Your task to perform on an android device: Search for vegetarian restaurants on Maps Image 0: 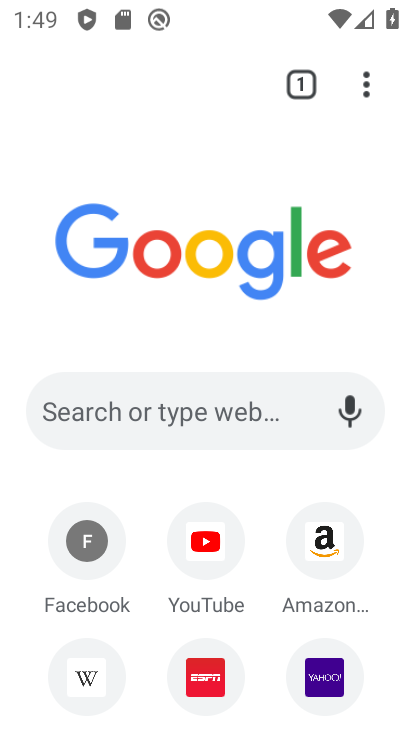
Step 0: press home button
Your task to perform on an android device: Search for vegetarian restaurants on Maps Image 1: 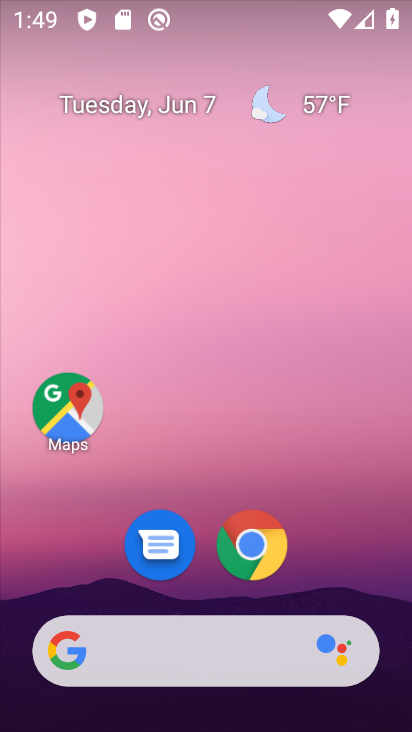
Step 1: click (74, 396)
Your task to perform on an android device: Search for vegetarian restaurants on Maps Image 2: 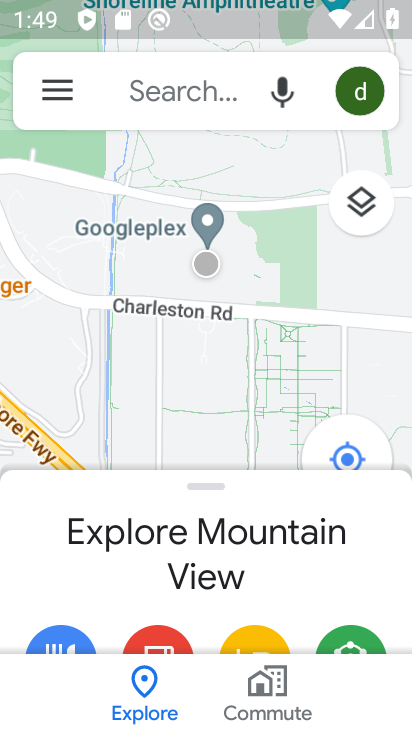
Step 2: click (188, 87)
Your task to perform on an android device: Search for vegetarian restaurants on Maps Image 3: 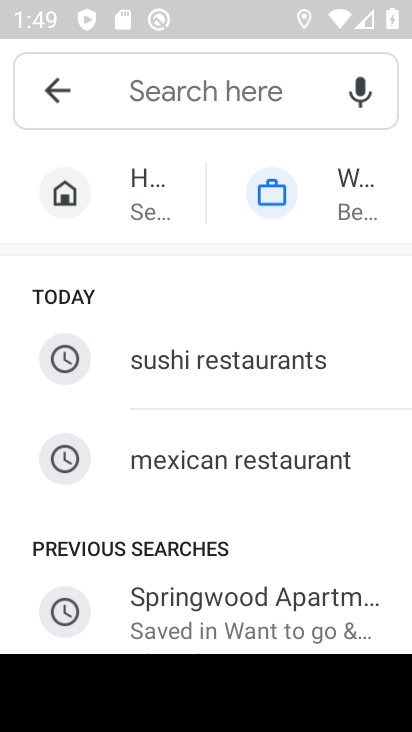
Step 3: drag from (209, 552) to (188, 123)
Your task to perform on an android device: Search for vegetarian restaurants on Maps Image 4: 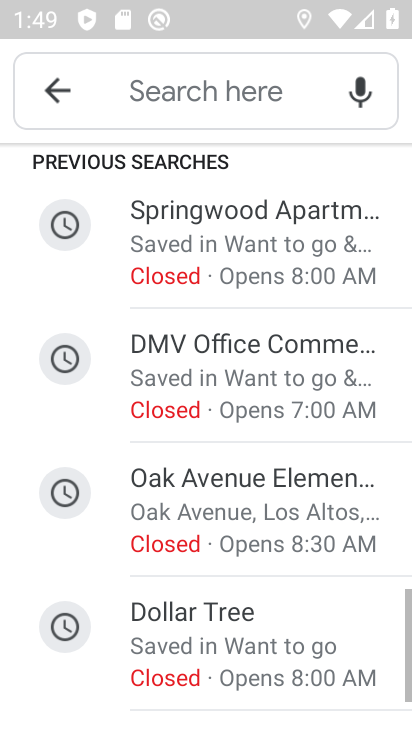
Step 4: drag from (201, 540) to (216, 193)
Your task to perform on an android device: Search for vegetarian restaurants on Maps Image 5: 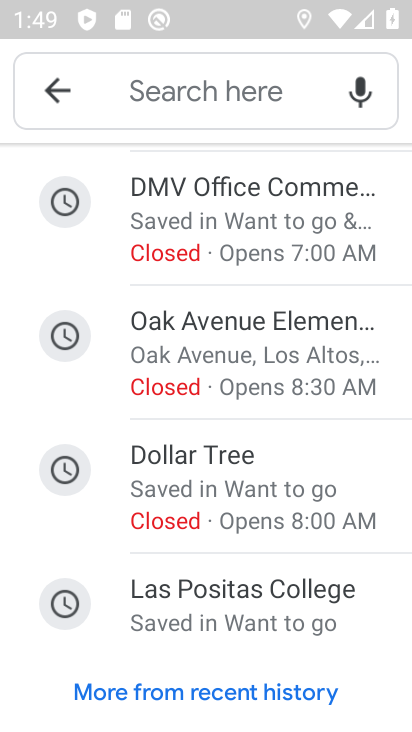
Step 5: drag from (205, 194) to (210, 677)
Your task to perform on an android device: Search for vegetarian restaurants on Maps Image 6: 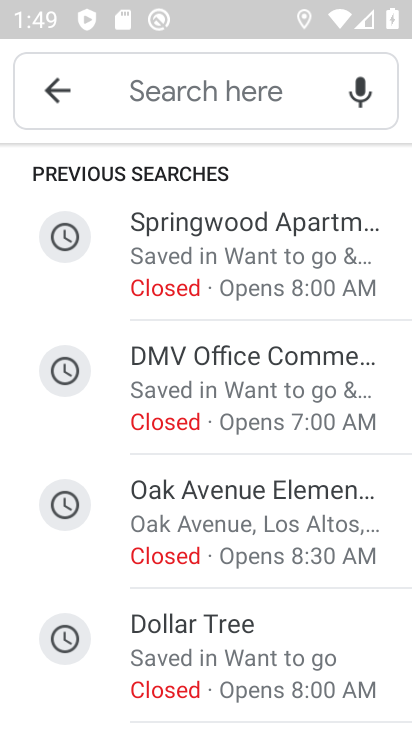
Step 6: drag from (193, 246) to (231, 704)
Your task to perform on an android device: Search for vegetarian restaurants on Maps Image 7: 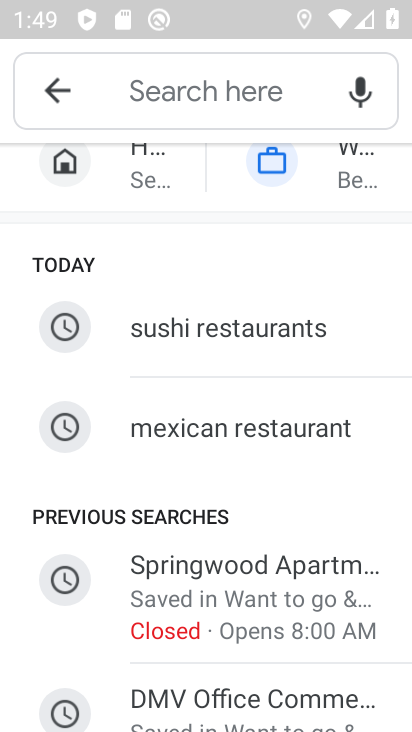
Step 7: click (160, 71)
Your task to perform on an android device: Search for vegetarian restaurants on Maps Image 8: 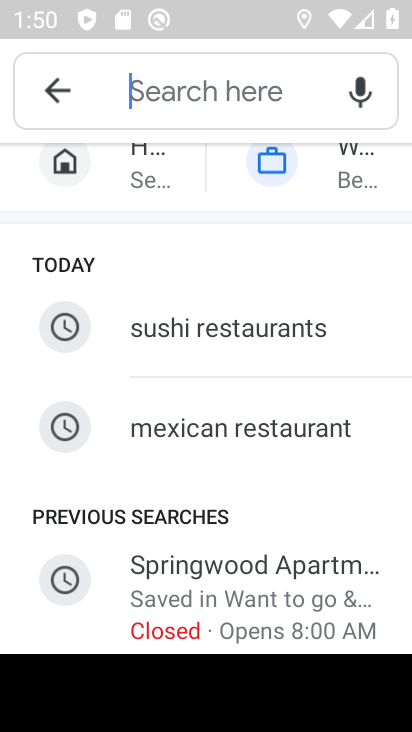
Step 8: type "vegetarian restaurants"
Your task to perform on an android device: Search for vegetarian restaurants on Maps Image 9: 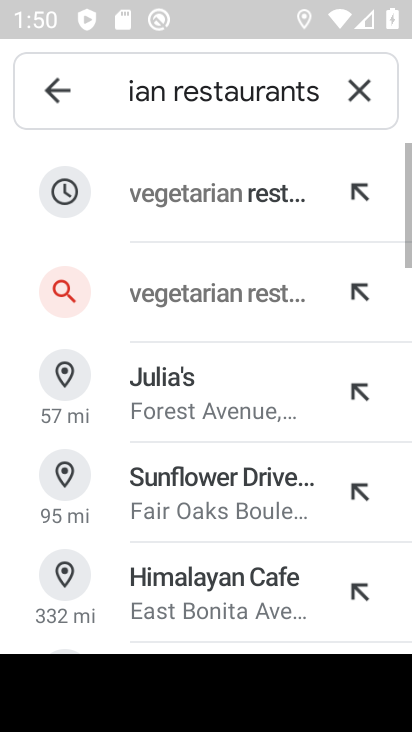
Step 9: click (208, 193)
Your task to perform on an android device: Search for vegetarian restaurants on Maps Image 10: 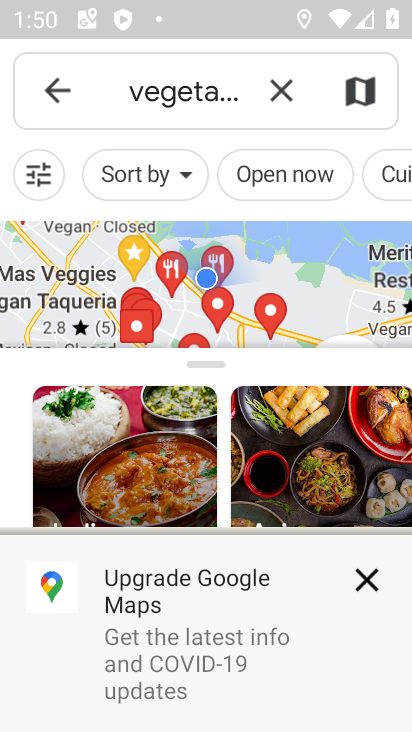
Step 10: task complete